Your task to perform on an android device: all mails in gmail Image 0: 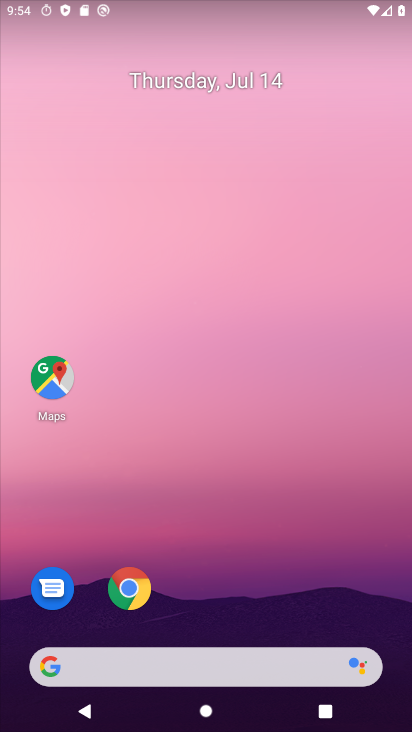
Step 0: drag from (153, 524) to (153, 301)
Your task to perform on an android device: all mails in gmail Image 1: 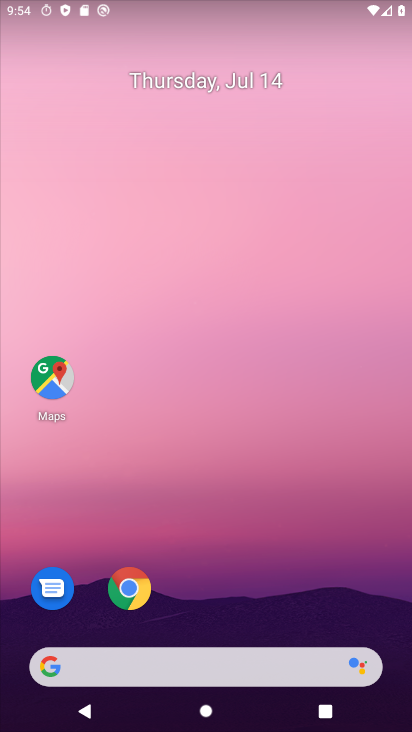
Step 1: drag from (268, 613) to (262, 178)
Your task to perform on an android device: all mails in gmail Image 2: 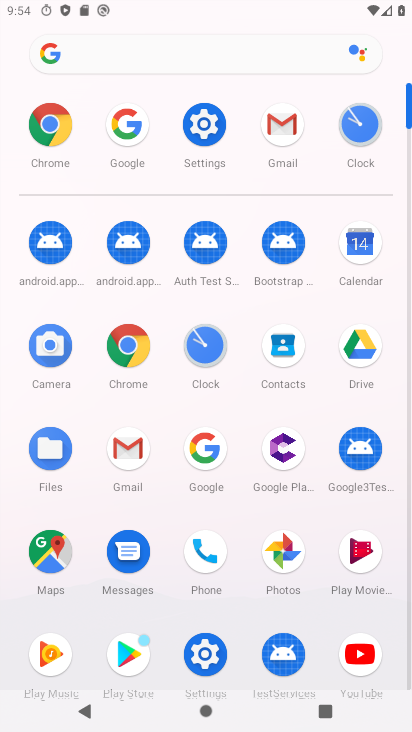
Step 2: click (280, 122)
Your task to perform on an android device: all mails in gmail Image 3: 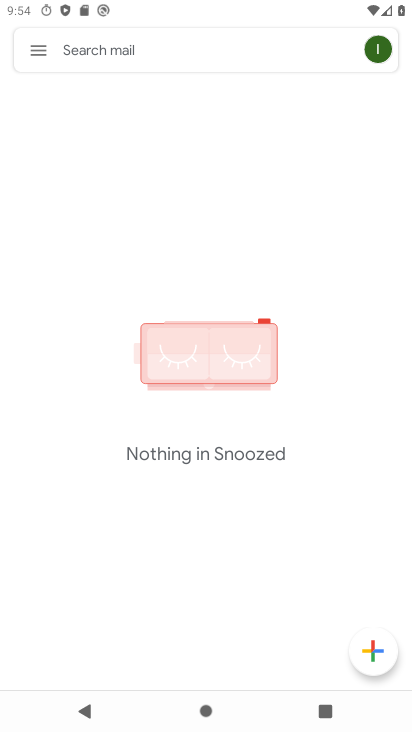
Step 3: click (44, 51)
Your task to perform on an android device: all mails in gmail Image 4: 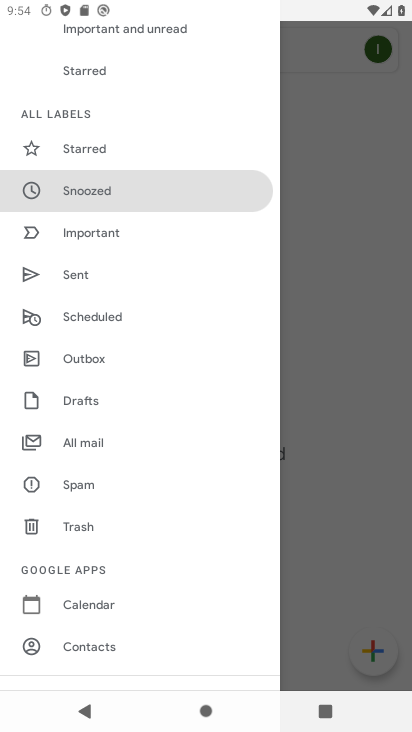
Step 4: click (92, 444)
Your task to perform on an android device: all mails in gmail Image 5: 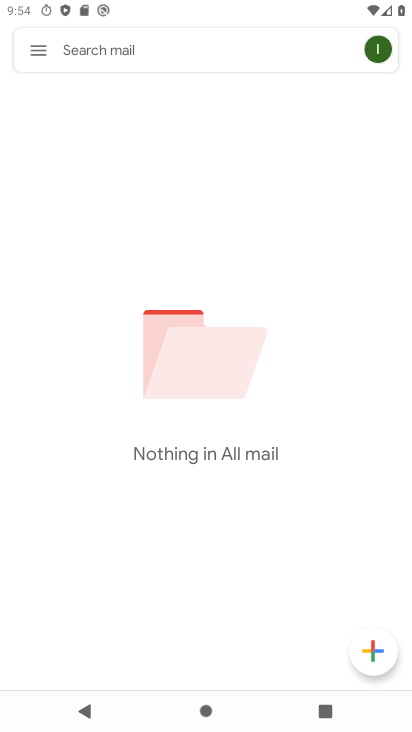
Step 5: task complete